Your task to perform on an android device: set default search engine in the chrome app Image 0: 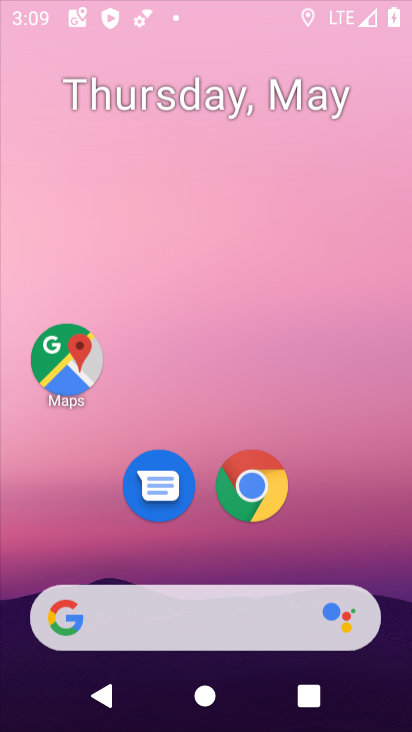
Step 0: drag from (271, 279) to (292, 132)
Your task to perform on an android device: set default search engine in the chrome app Image 1: 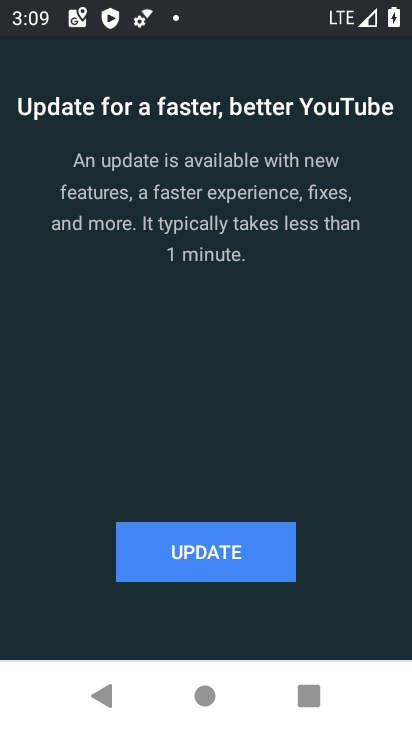
Step 1: press home button
Your task to perform on an android device: set default search engine in the chrome app Image 2: 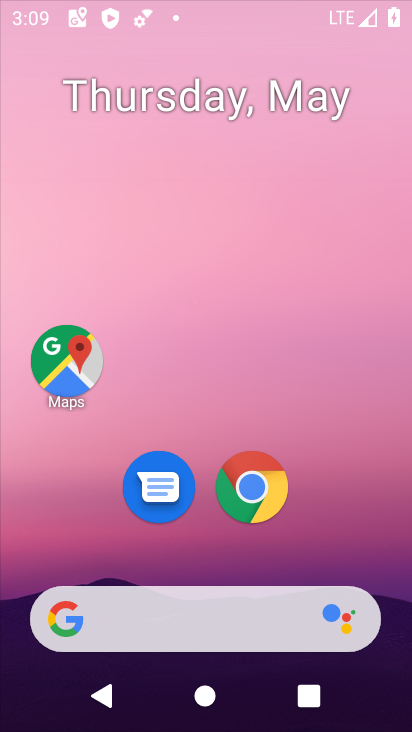
Step 2: drag from (171, 643) to (224, 163)
Your task to perform on an android device: set default search engine in the chrome app Image 3: 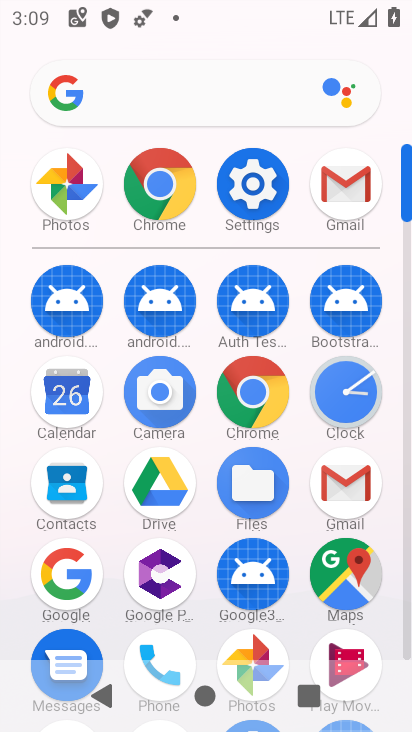
Step 3: click (264, 396)
Your task to perform on an android device: set default search engine in the chrome app Image 4: 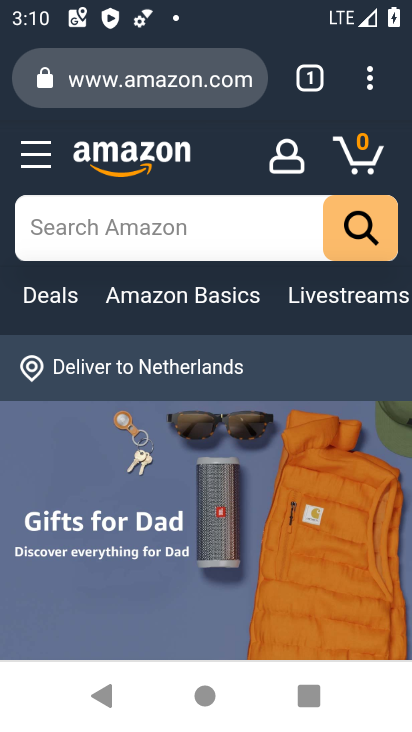
Step 4: click (374, 72)
Your task to perform on an android device: set default search engine in the chrome app Image 5: 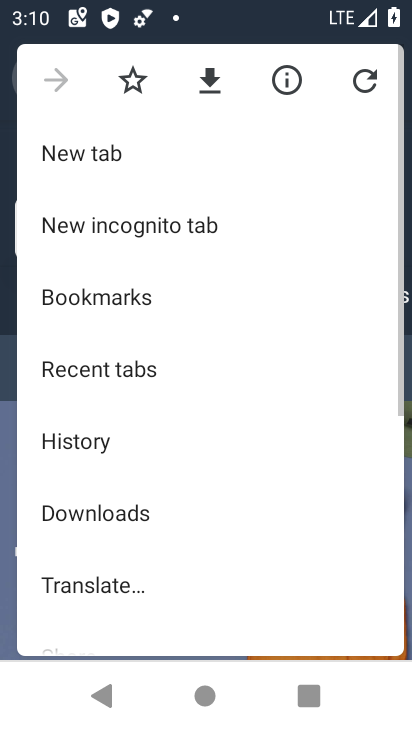
Step 5: drag from (193, 418) to (272, 99)
Your task to perform on an android device: set default search engine in the chrome app Image 6: 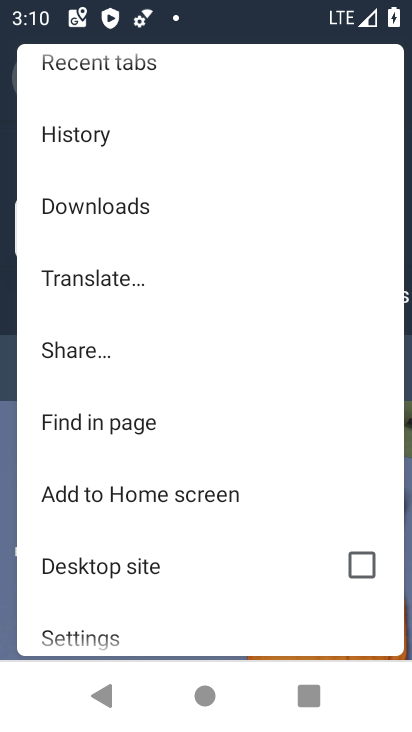
Step 6: drag from (285, 476) to (289, 155)
Your task to perform on an android device: set default search engine in the chrome app Image 7: 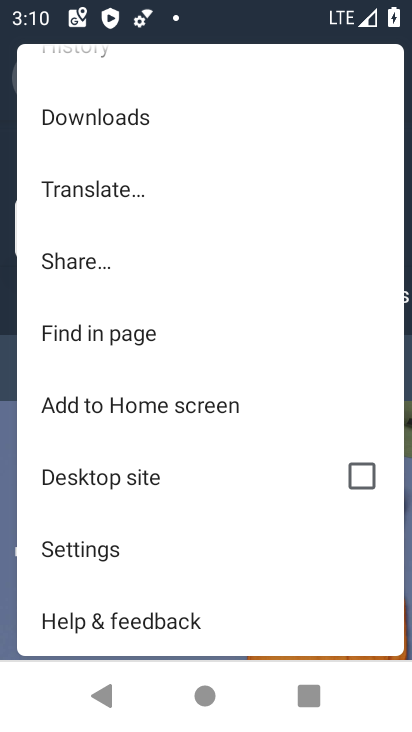
Step 7: drag from (185, 494) to (212, 350)
Your task to perform on an android device: set default search engine in the chrome app Image 8: 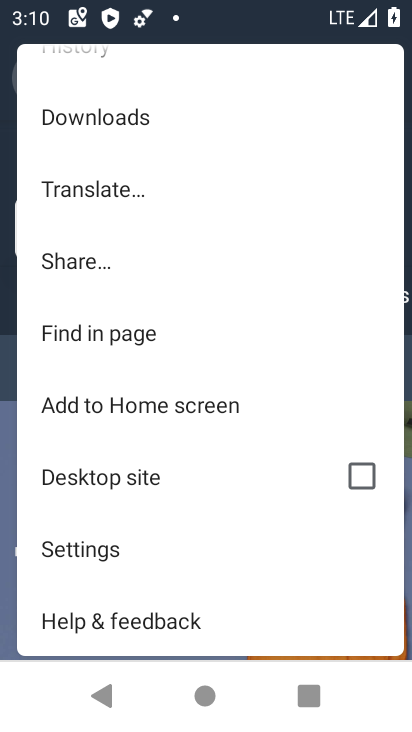
Step 8: click (115, 558)
Your task to perform on an android device: set default search engine in the chrome app Image 9: 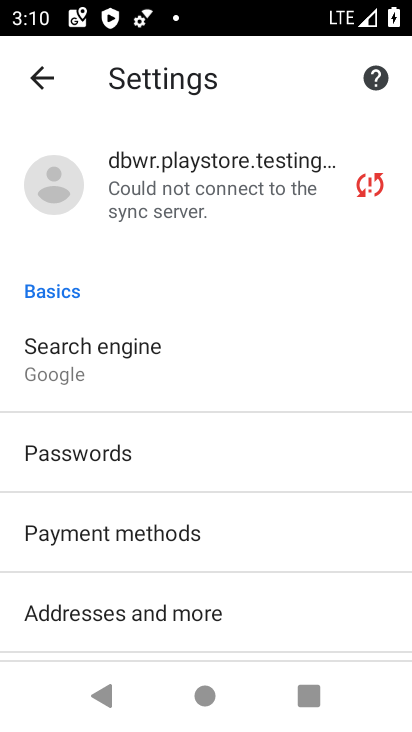
Step 9: click (157, 368)
Your task to perform on an android device: set default search engine in the chrome app Image 10: 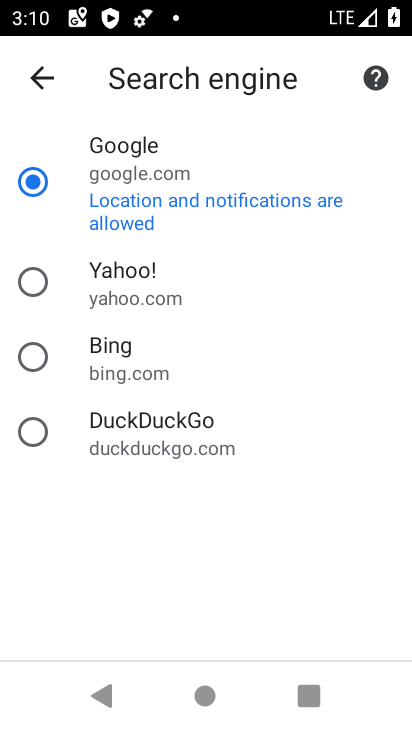
Step 10: task complete